Your task to perform on an android device: remove spam from my inbox in the gmail app Image 0: 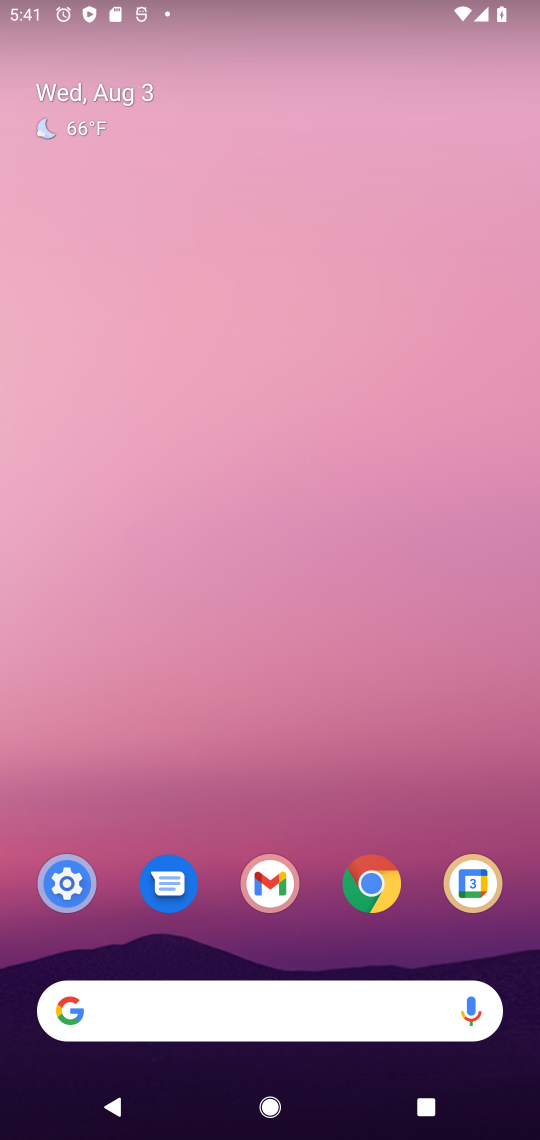
Step 0: drag from (291, 838) to (300, 402)
Your task to perform on an android device: remove spam from my inbox in the gmail app Image 1: 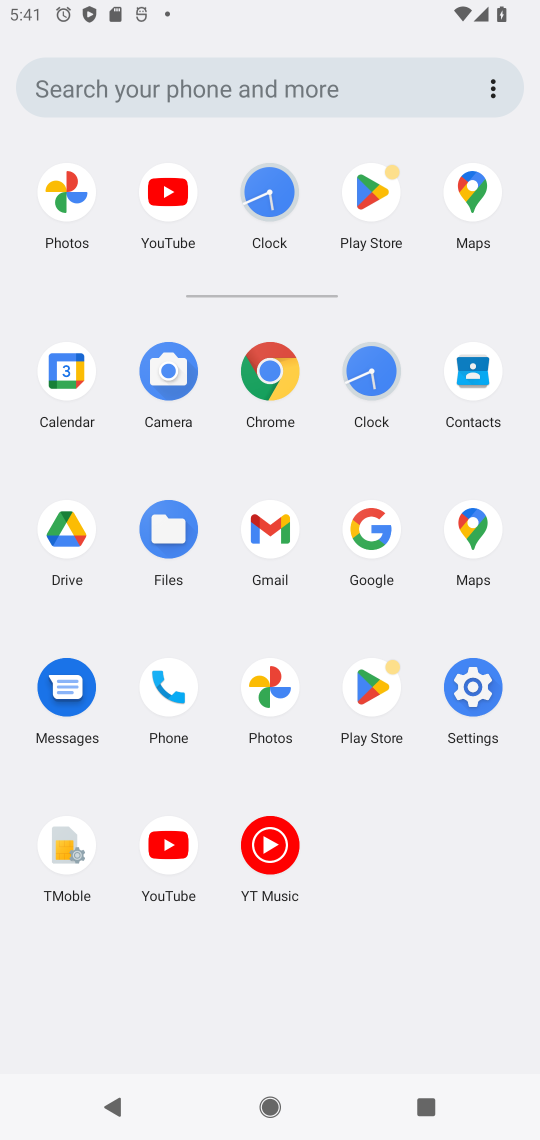
Step 1: click (277, 535)
Your task to perform on an android device: remove spam from my inbox in the gmail app Image 2: 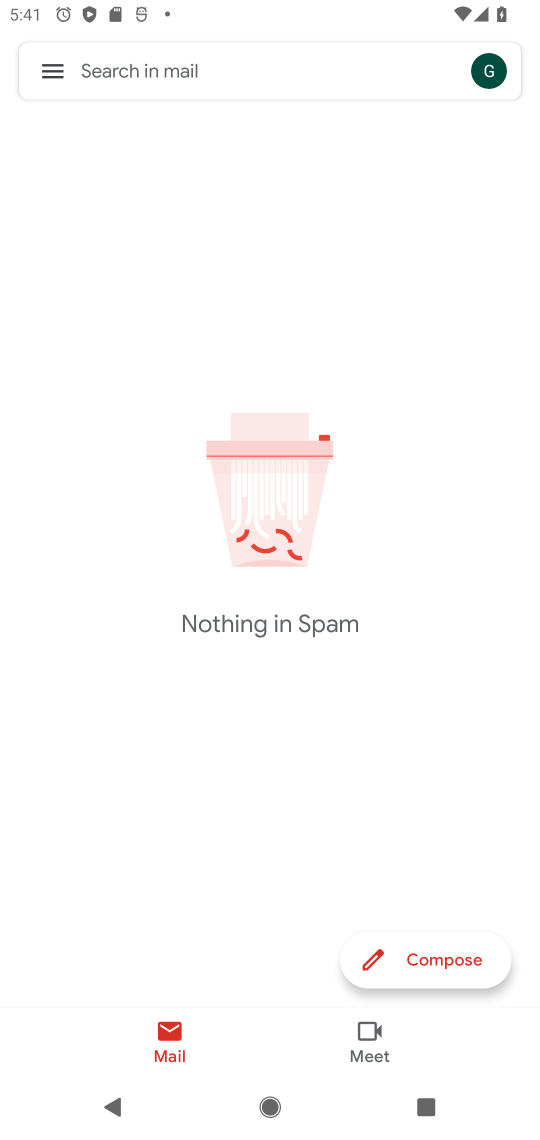
Step 2: task complete